Your task to perform on an android device: Search for the best vacuum on Amazon. Image 0: 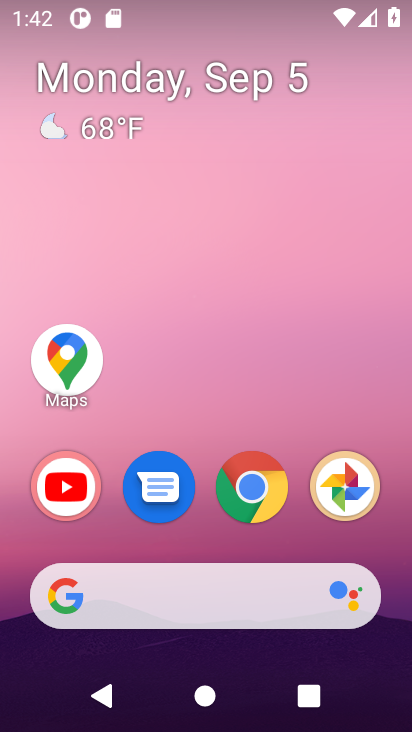
Step 0: click (244, 501)
Your task to perform on an android device: Search for the best vacuum on Amazon. Image 1: 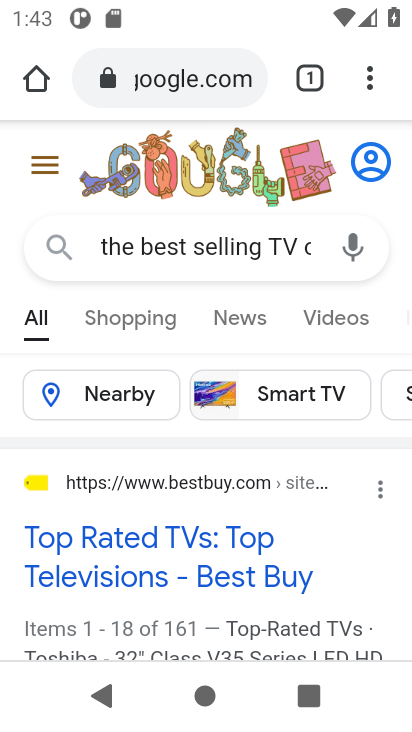
Step 1: click (185, 105)
Your task to perform on an android device: Search for the best vacuum on Amazon. Image 2: 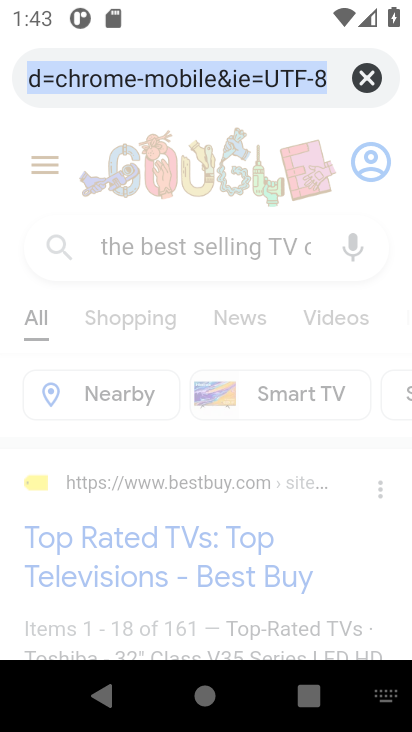
Step 2: click (352, 74)
Your task to perform on an android device: Search for the best vacuum on Amazon. Image 3: 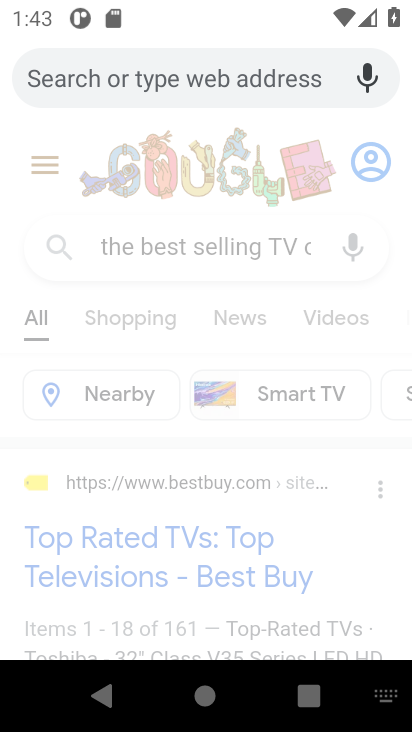
Step 3: type "the best vacuum on Amazon."
Your task to perform on an android device: Search for the best vacuum on Amazon. Image 4: 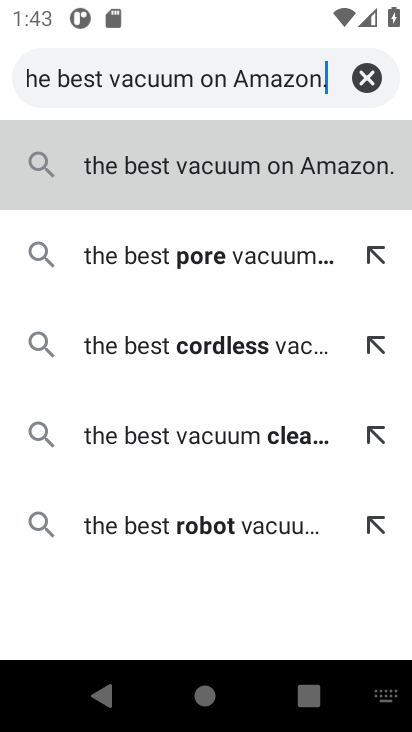
Step 4: click (286, 187)
Your task to perform on an android device: Search for the best vacuum on Amazon. Image 5: 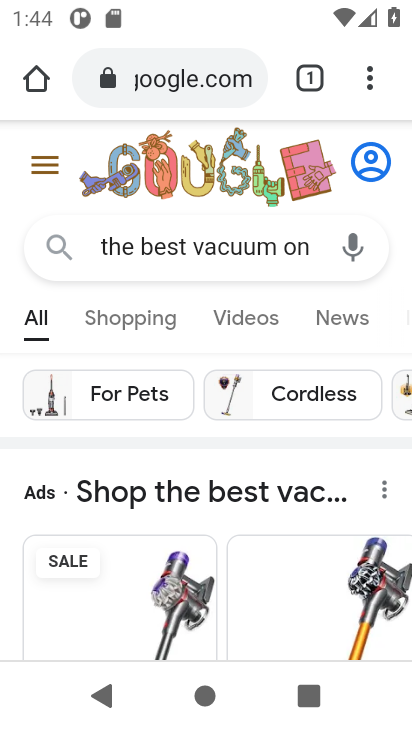
Step 5: task complete